Your task to perform on an android device: change the clock display to digital Image 0: 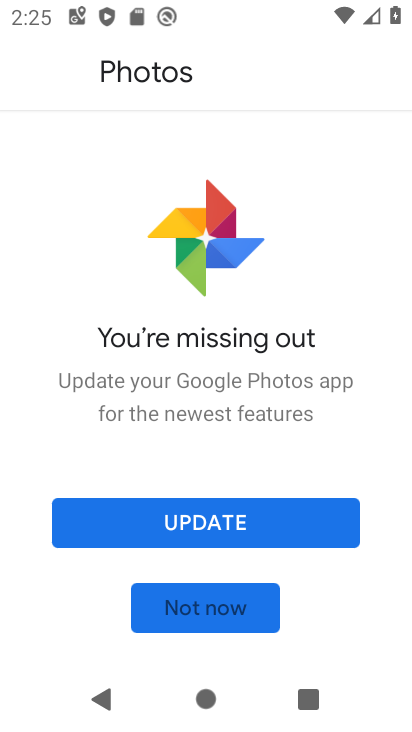
Step 0: press home button
Your task to perform on an android device: change the clock display to digital Image 1: 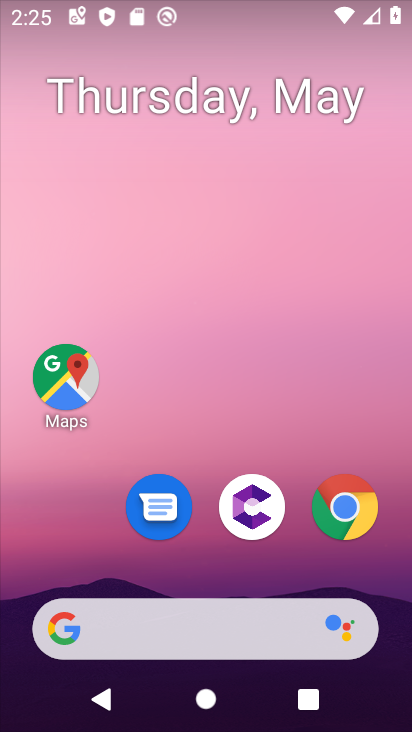
Step 1: drag from (204, 594) to (210, 330)
Your task to perform on an android device: change the clock display to digital Image 2: 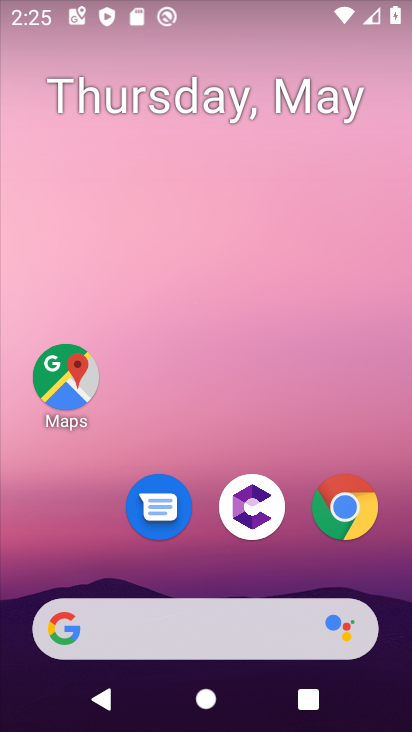
Step 2: drag from (268, 572) to (267, 274)
Your task to perform on an android device: change the clock display to digital Image 3: 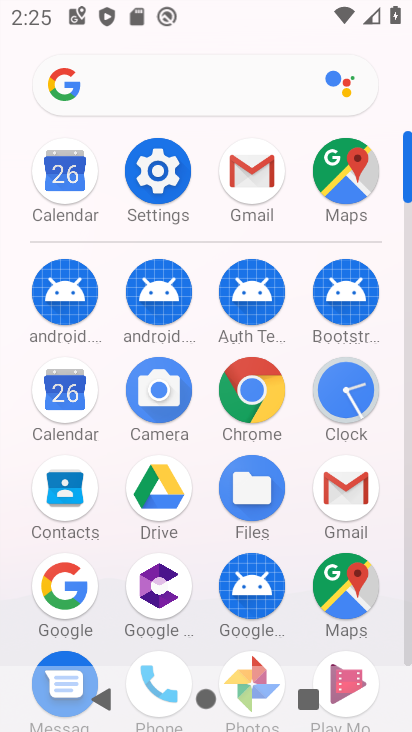
Step 3: click (352, 397)
Your task to perform on an android device: change the clock display to digital Image 4: 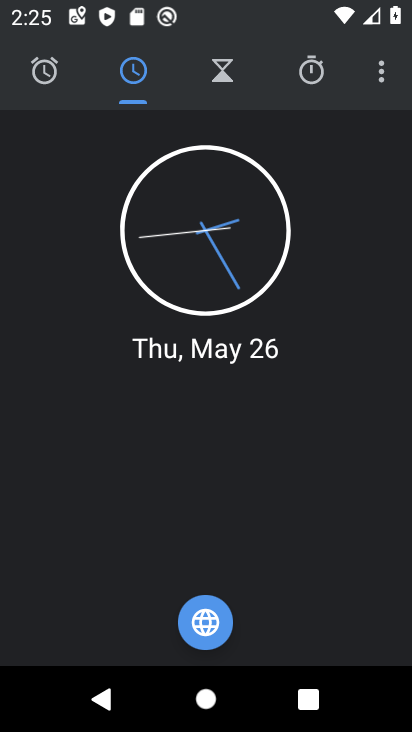
Step 4: click (377, 77)
Your task to perform on an android device: change the clock display to digital Image 5: 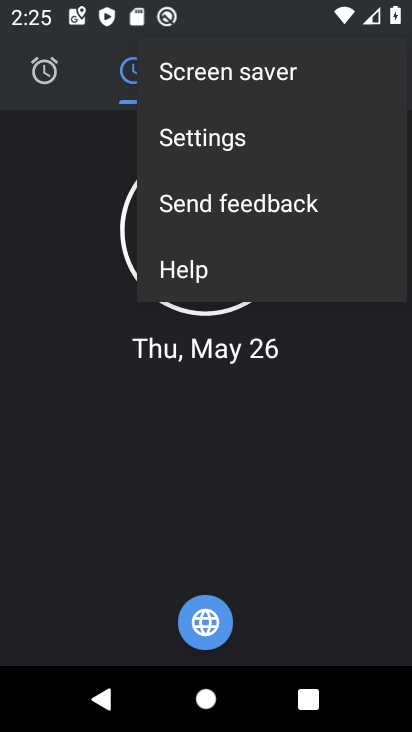
Step 5: click (223, 133)
Your task to perform on an android device: change the clock display to digital Image 6: 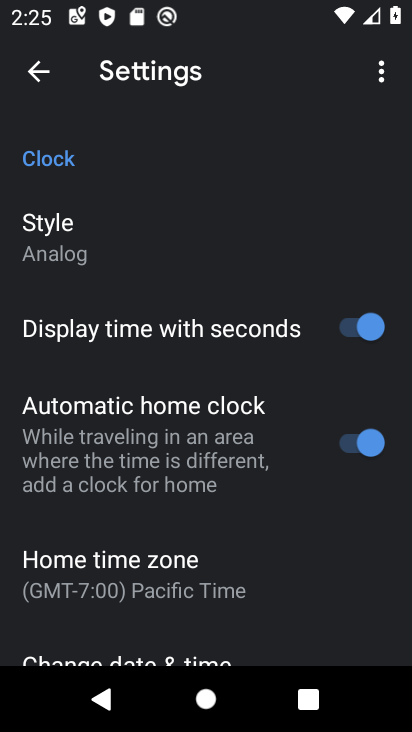
Step 6: click (58, 233)
Your task to perform on an android device: change the clock display to digital Image 7: 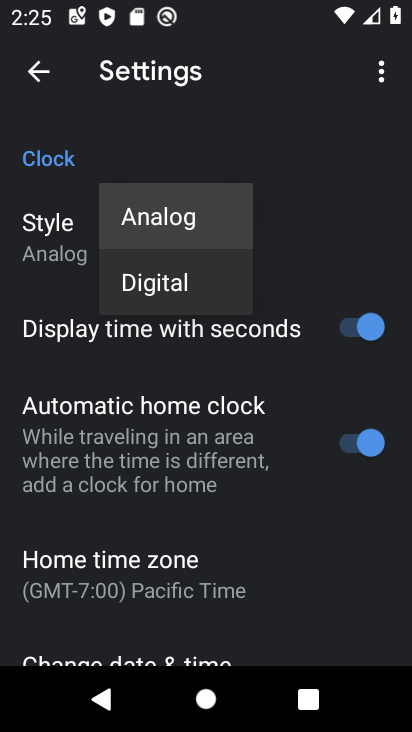
Step 7: click (178, 291)
Your task to perform on an android device: change the clock display to digital Image 8: 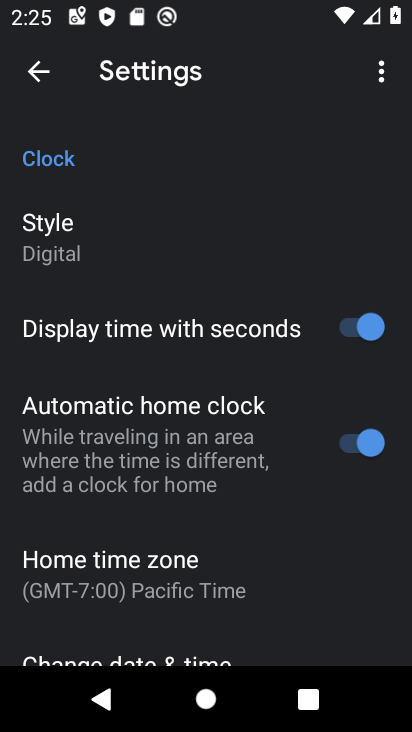
Step 8: task complete